Your task to perform on an android device: Go to Google maps Image 0: 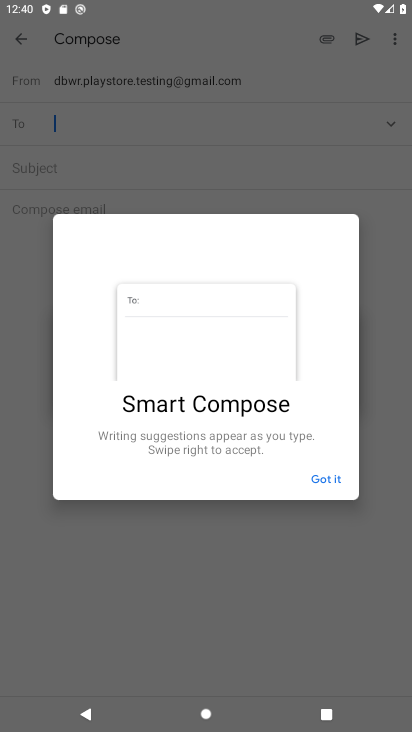
Step 0: press home button
Your task to perform on an android device: Go to Google maps Image 1: 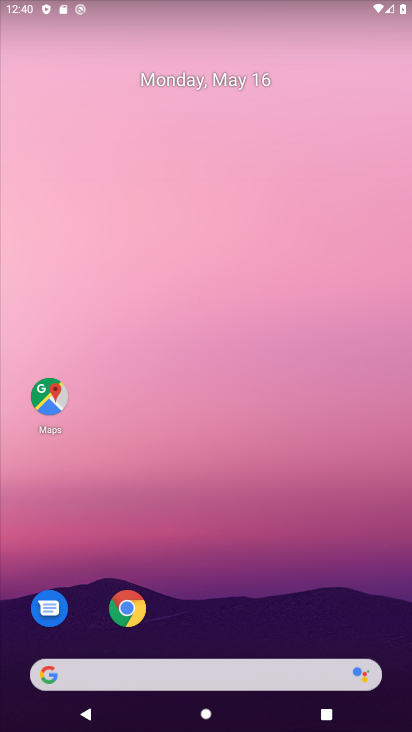
Step 1: click (47, 401)
Your task to perform on an android device: Go to Google maps Image 2: 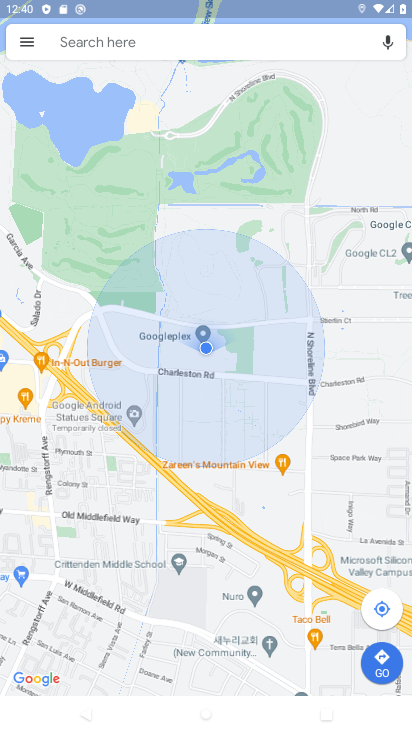
Step 2: task complete